Your task to perform on an android device: show emergency info Image 0: 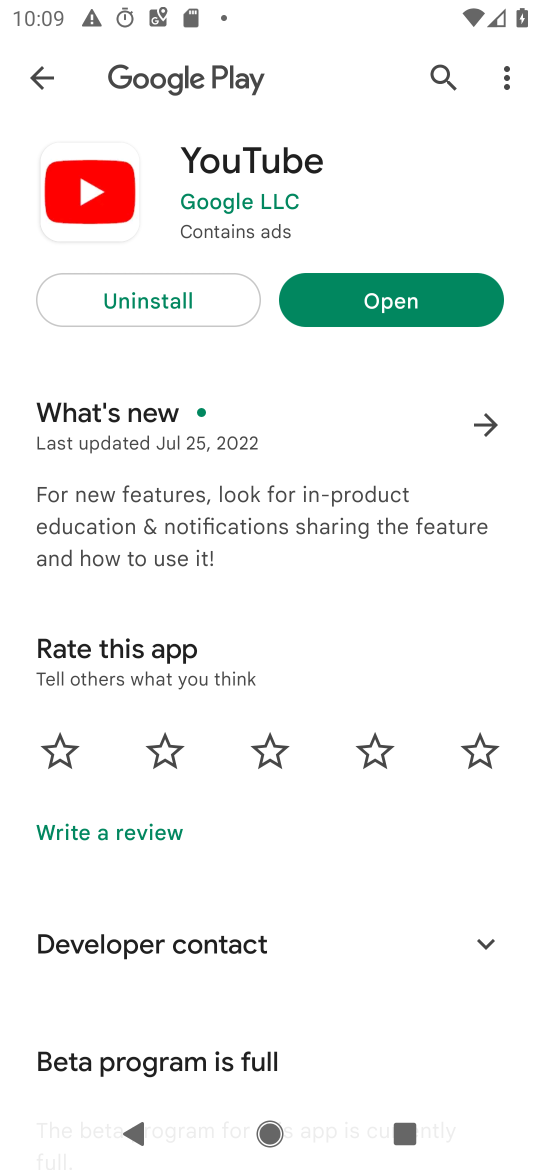
Step 0: press home button
Your task to perform on an android device: show emergency info Image 1: 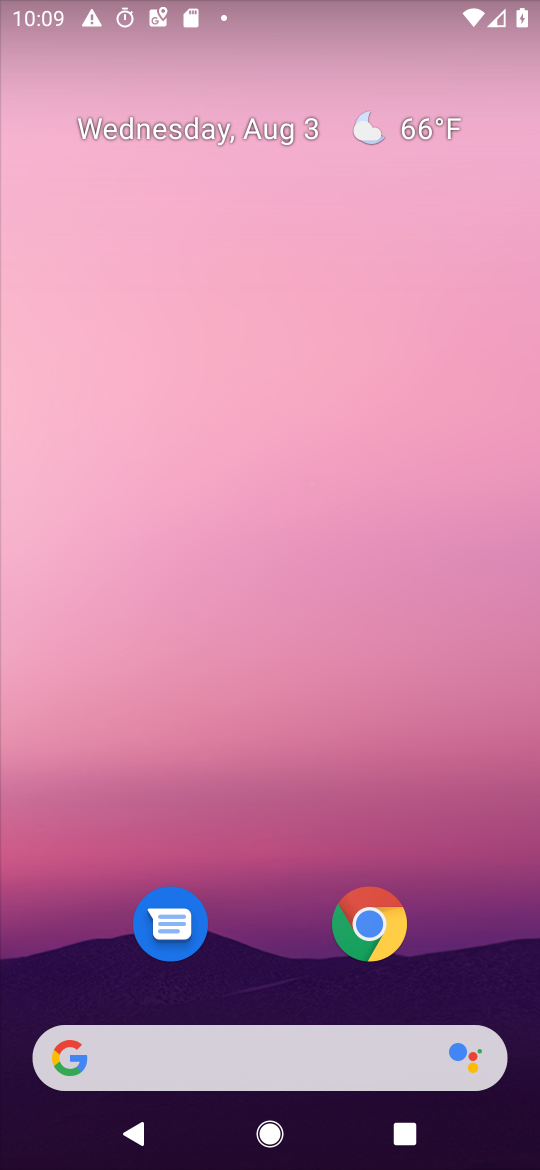
Step 1: drag from (273, 981) to (364, 2)
Your task to perform on an android device: show emergency info Image 2: 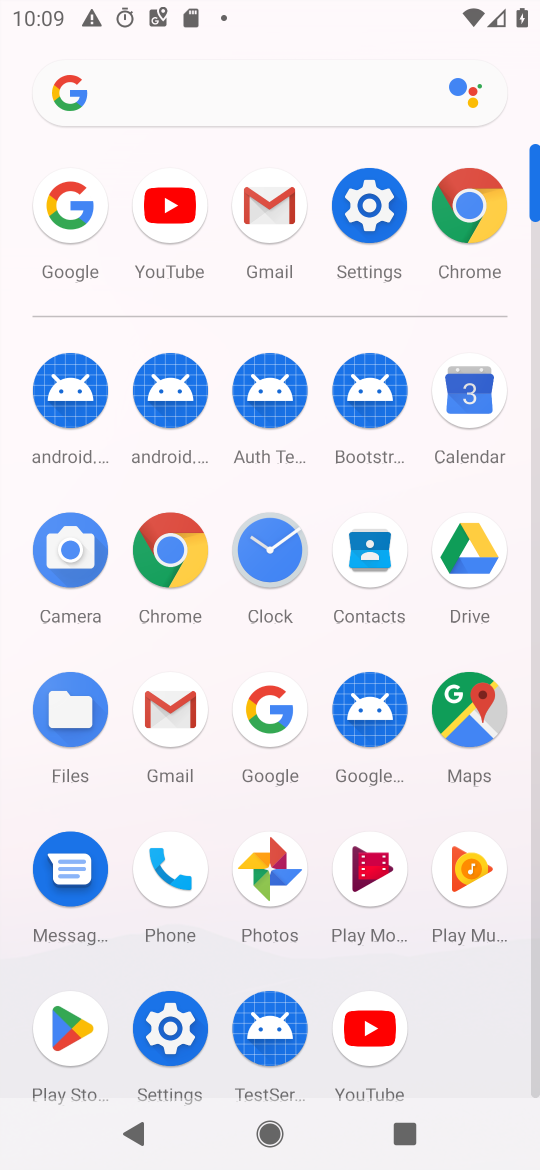
Step 2: click (175, 1009)
Your task to perform on an android device: show emergency info Image 3: 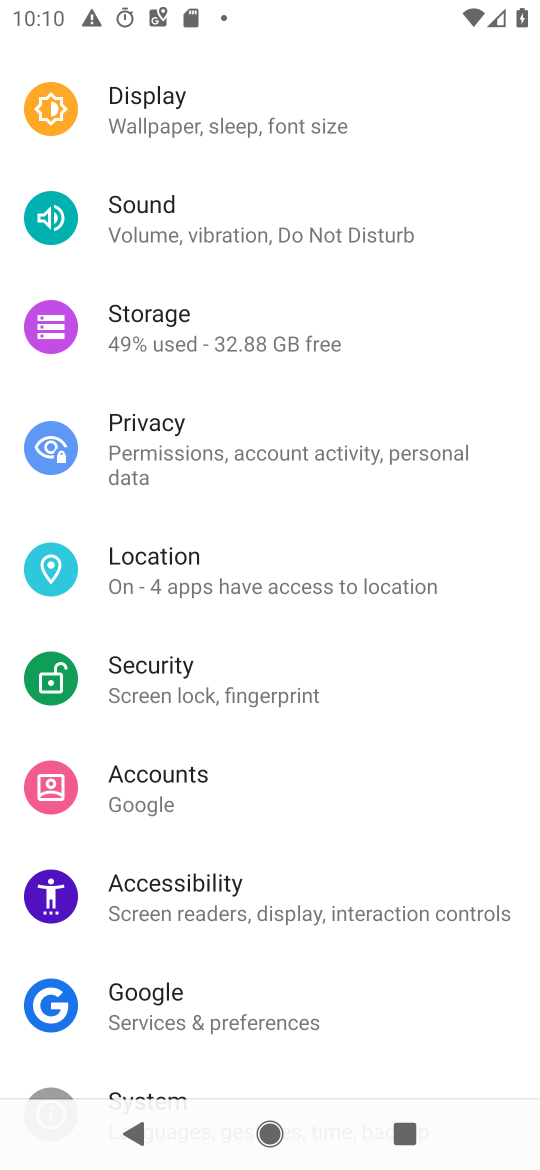
Step 3: drag from (302, 982) to (381, 133)
Your task to perform on an android device: show emergency info Image 4: 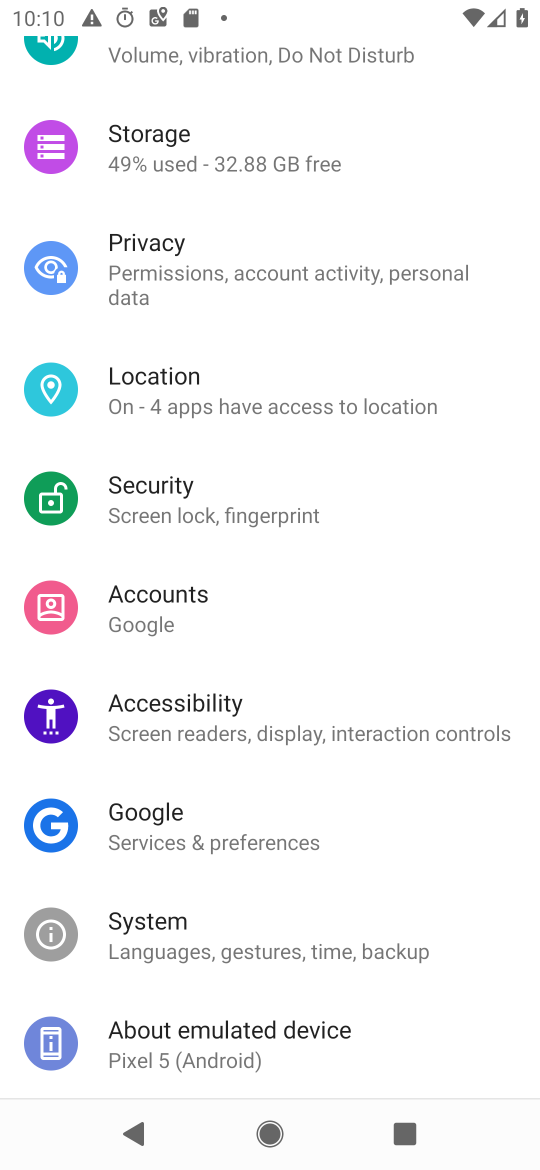
Step 4: click (300, 1045)
Your task to perform on an android device: show emergency info Image 5: 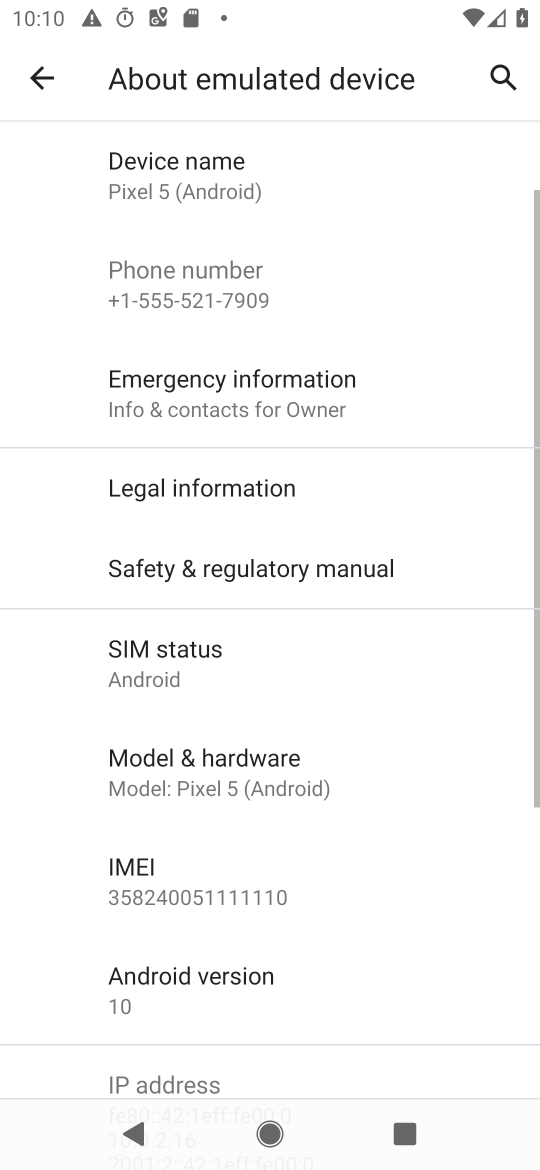
Step 5: click (364, 395)
Your task to perform on an android device: show emergency info Image 6: 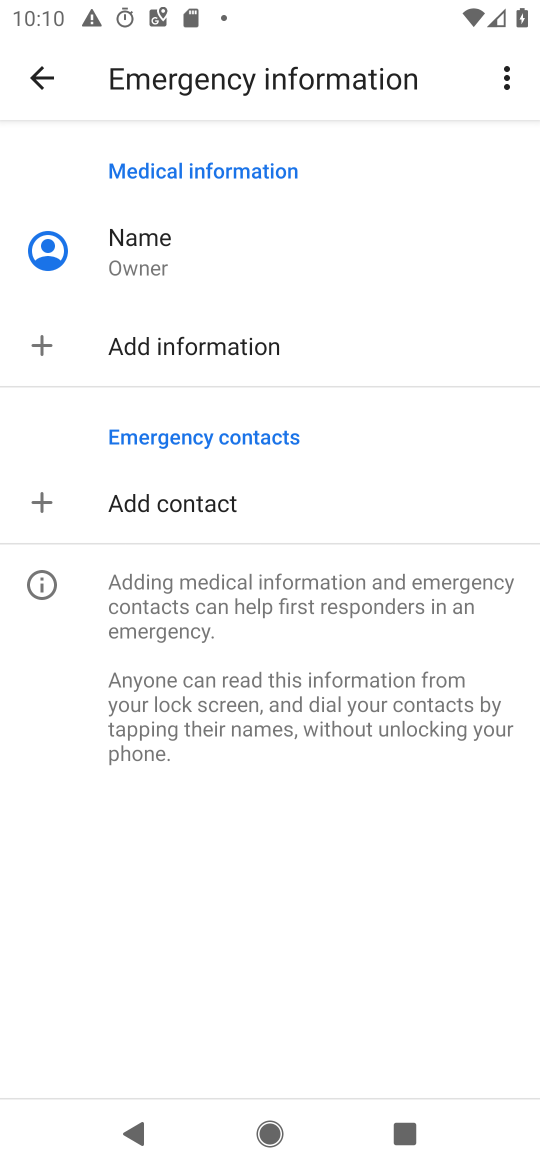
Step 6: task complete